Your task to perform on an android device: read, delete, or share a saved page in the chrome app Image 0: 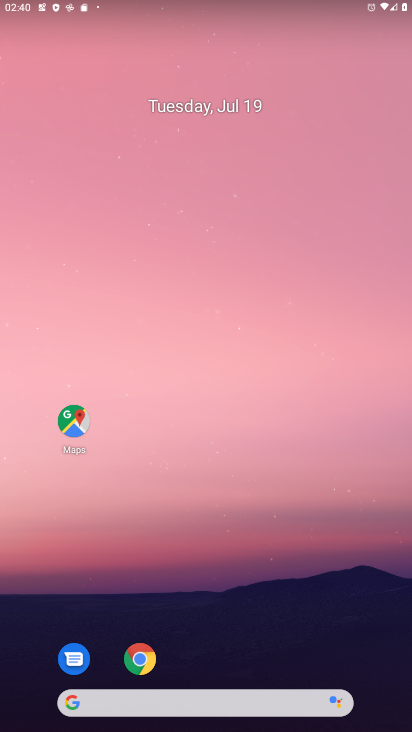
Step 0: press home button
Your task to perform on an android device: read, delete, or share a saved page in the chrome app Image 1: 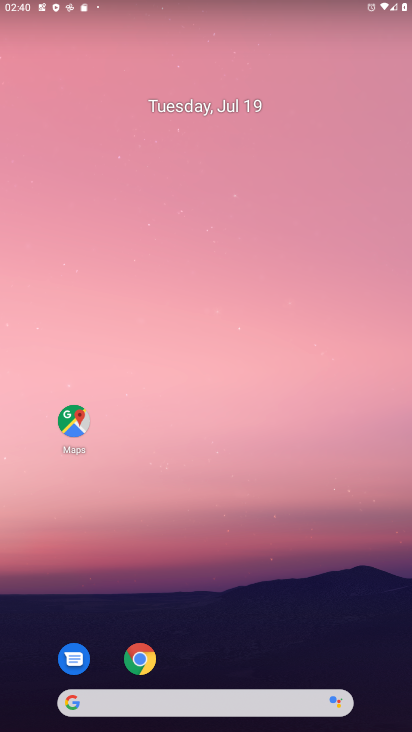
Step 1: drag from (325, 675) to (285, 178)
Your task to perform on an android device: read, delete, or share a saved page in the chrome app Image 2: 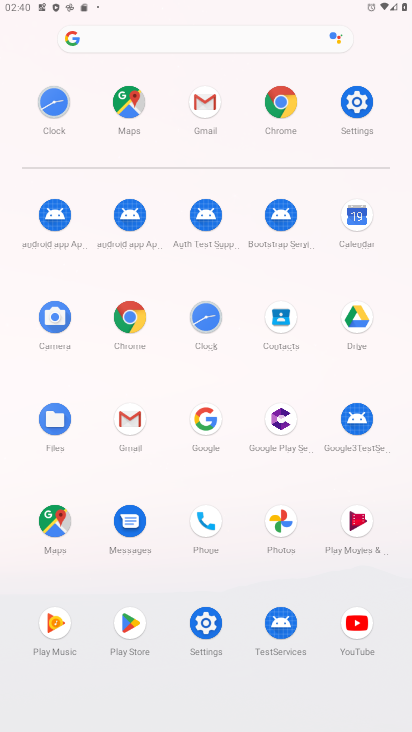
Step 2: click (152, 334)
Your task to perform on an android device: read, delete, or share a saved page in the chrome app Image 3: 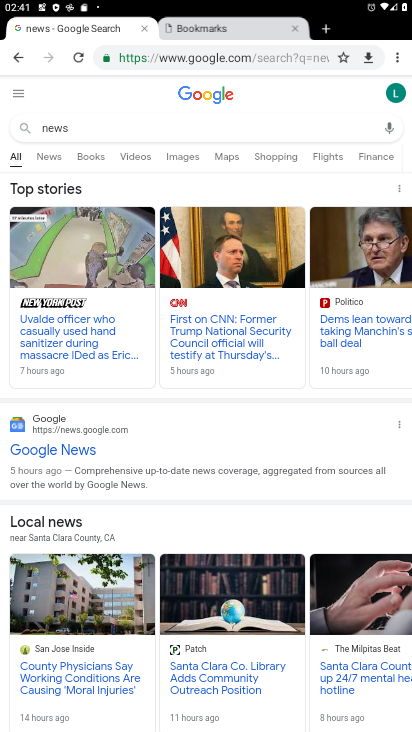
Step 3: drag from (392, 48) to (274, 247)
Your task to perform on an android device: read, delete, or share a saved page in the chrome app Image 4: 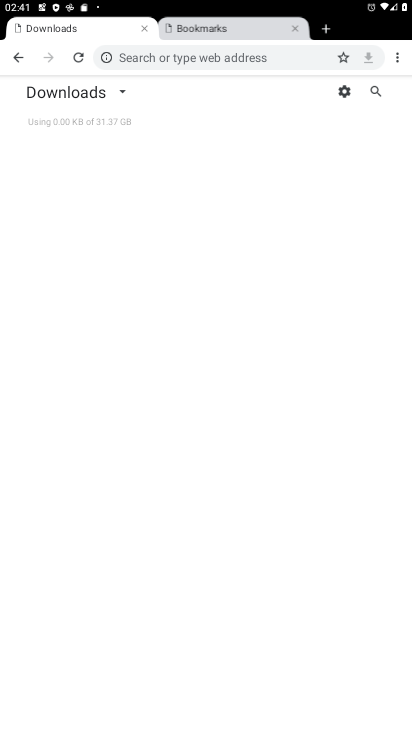
Step 4: click (110, 86)
Your task to perform on an android device: read, delete, or share a saved page in the chrome app Image 5: 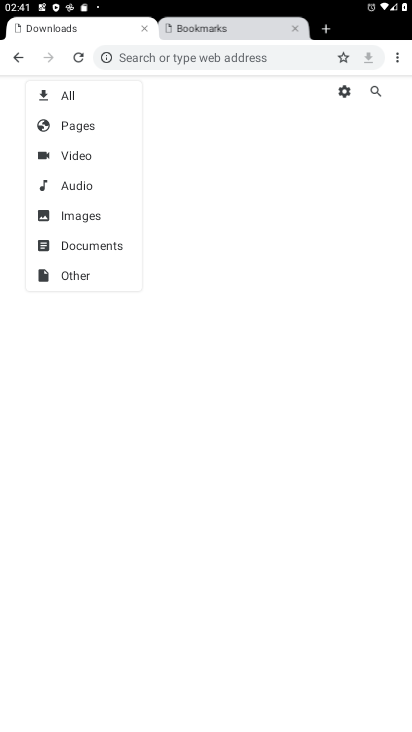
Step 5: click (95, 116)
Your task to perform on an android device: read, delete, or share a saved page in the chrome app Image 6: 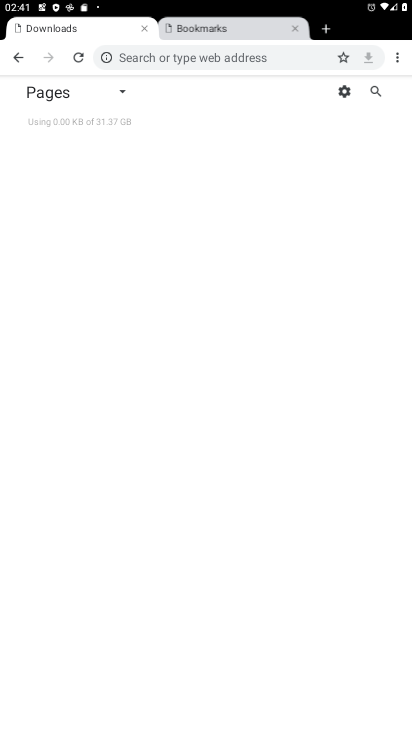
Step 6: task complete